Your task to perform on an android device: Go to battery settings Image 0: 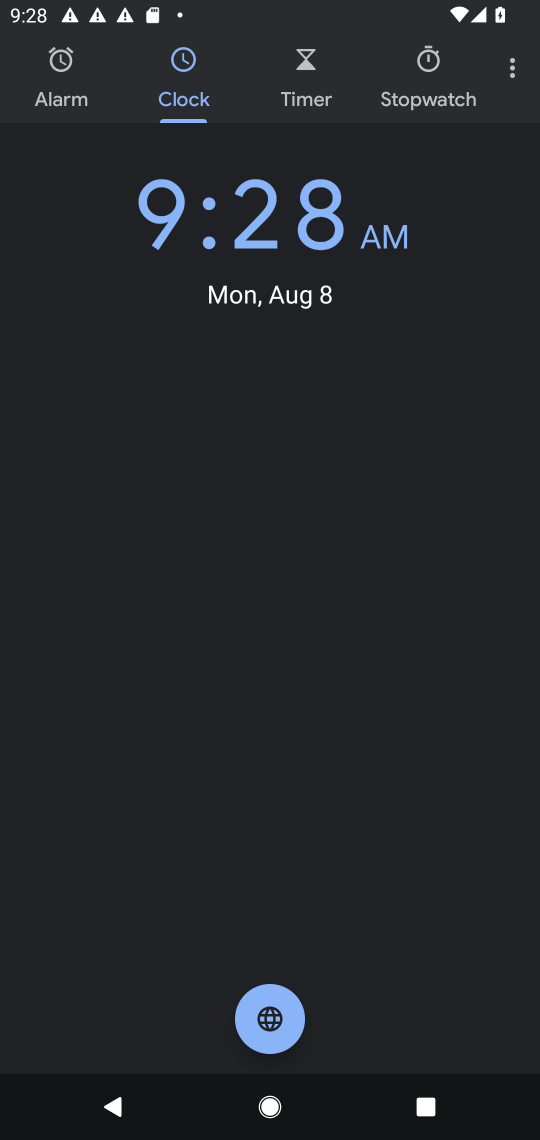
Step 0: press home button
Your task to perform on an android device: Go to battery settings Image 1: 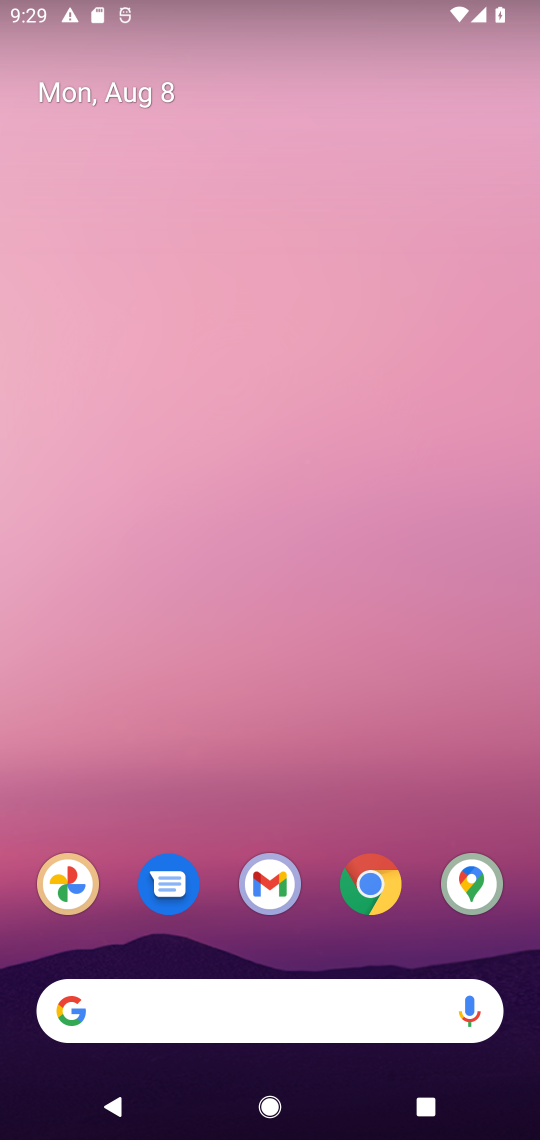
Step 1: drag from (274, 773) to (307, 76)
Your task to perform on an android device: Go to battery settings Image 2: 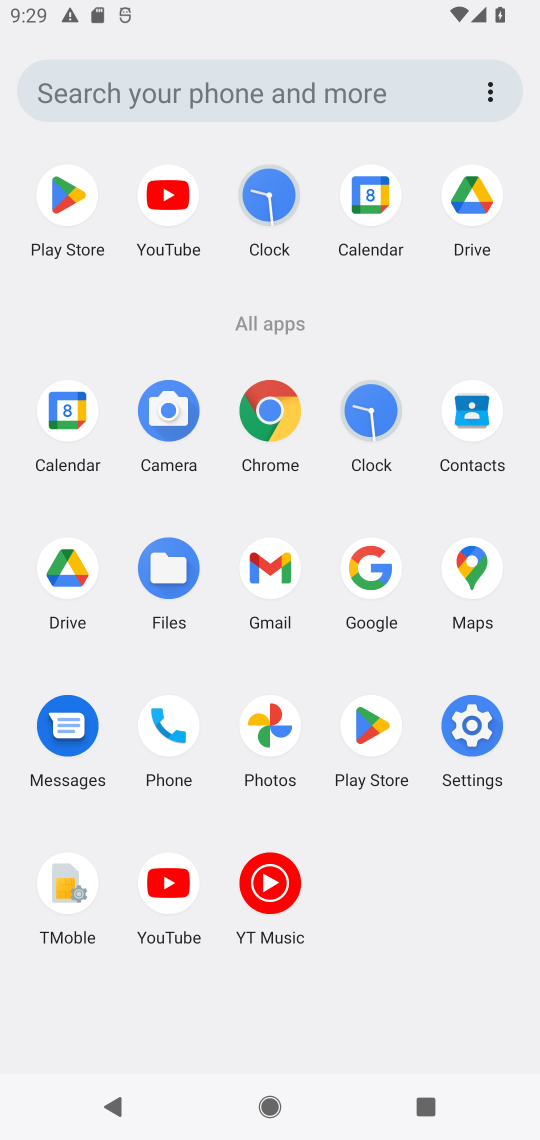
Step 2: click (471, 725)
Your task to perform on an android device: Go to battery settings Image 3: 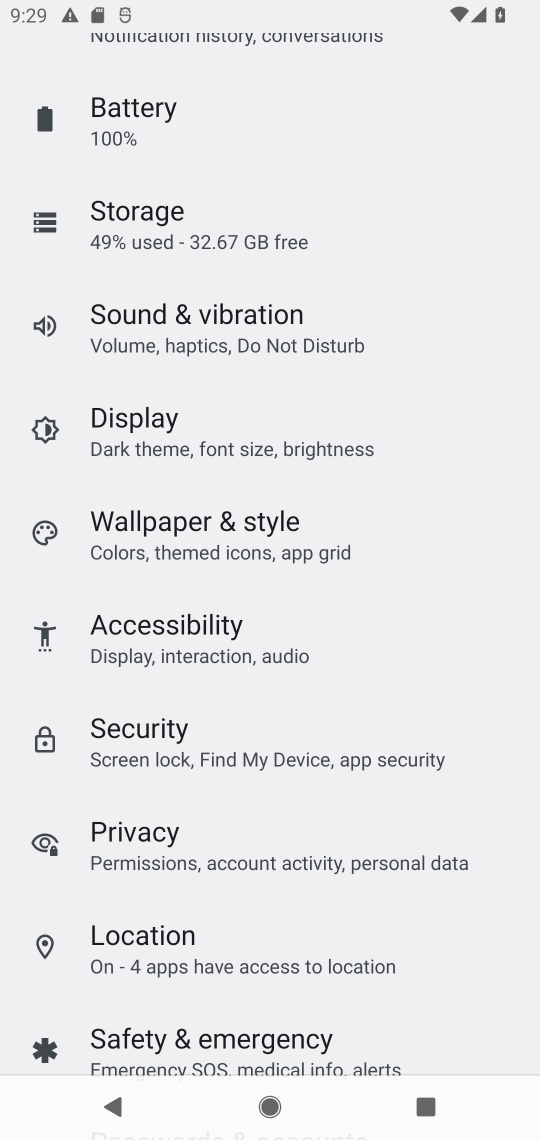
Step 3: click (148, 102)
Your task to perform on an android device: Go to battery settings Image 4: 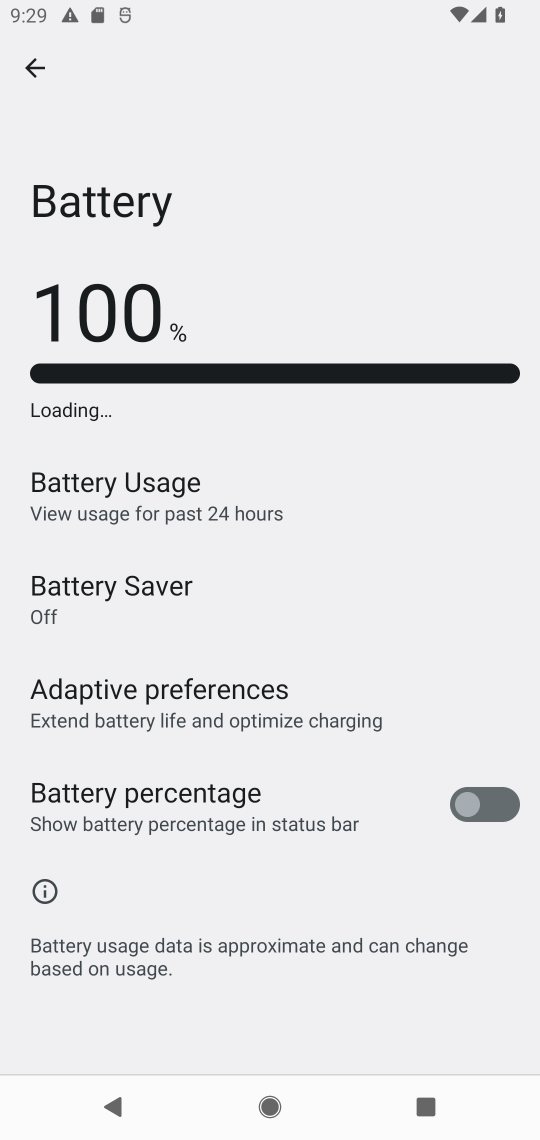
Step 4: task complete